Your task to perform on an android device: toggle sleep mode Image 0: 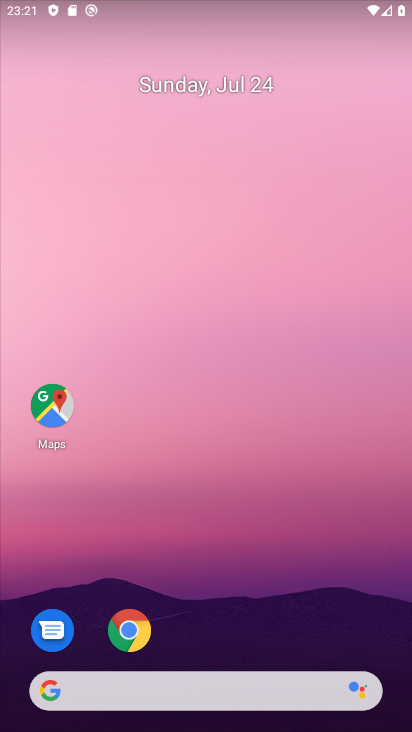
Step 0: drag from (298, 612) to (260, 98)
Your task to perform on an android device: toggle sleep mode Image 1: 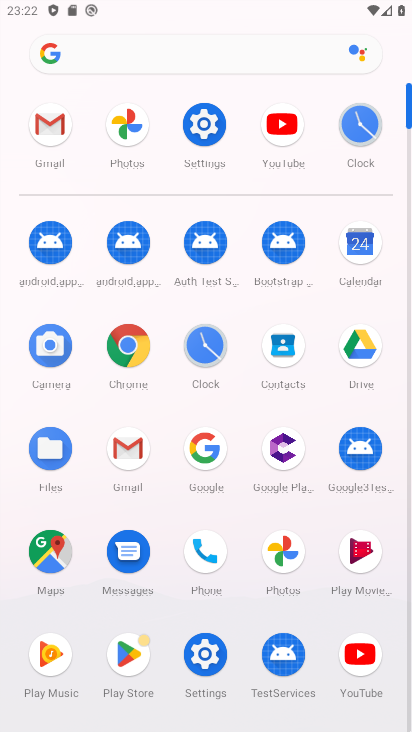
Step 1: click (213, 640)
Your task to perform on an android device: toggle sleep mode Image 2: 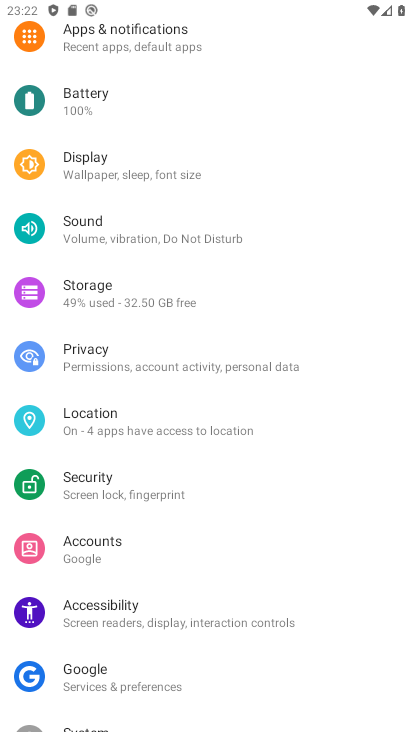
Step 2: click (167, 159)
Your task to perform on an android device: toggle sleep mode Image 3: 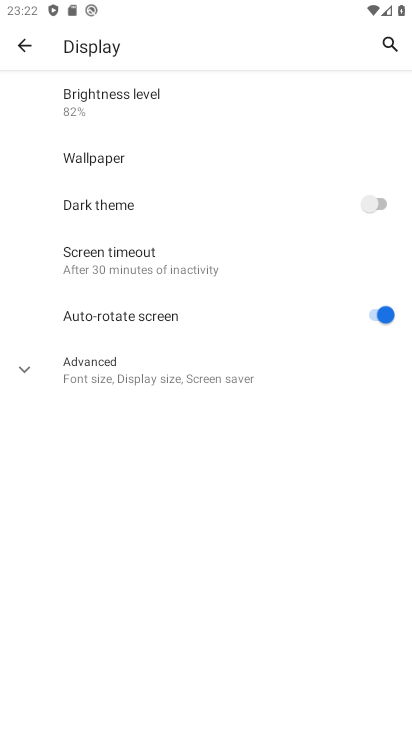
Step 3: click (129, 381)
Your task to perform on an android device: toggle sleep mode Image 4: 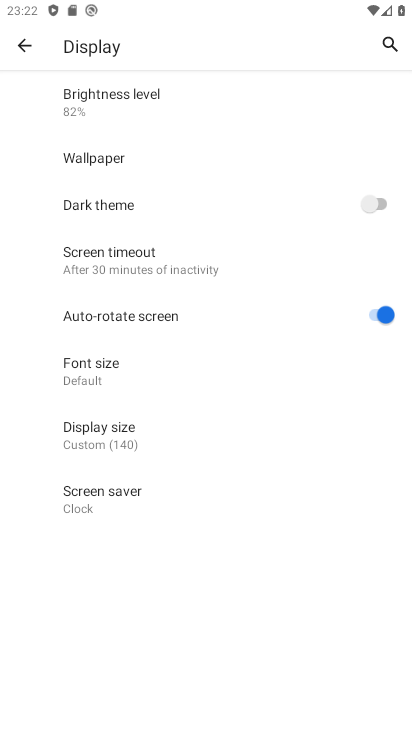
Step 4: task complete